Your task to perform on an android device: turn off improve location accuracy Image 0: 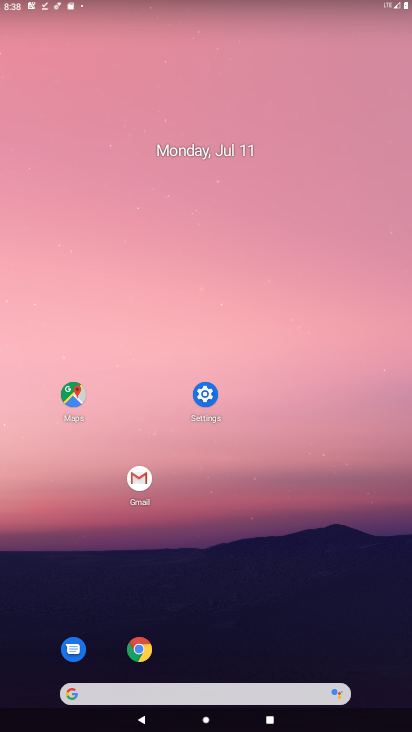
Step 0: click (206, 399)
Your task to perform on an android device: turn off improve location accuracy Image 1: 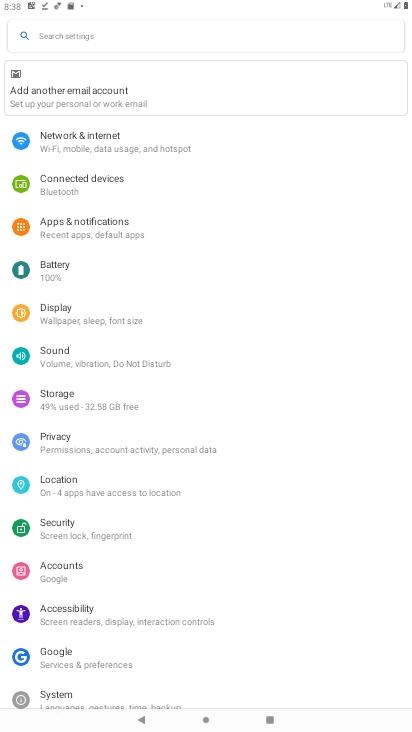
Step 1: click (63, 479)
Your task to perform on an android device: turn off improve location accuracy Image 2: 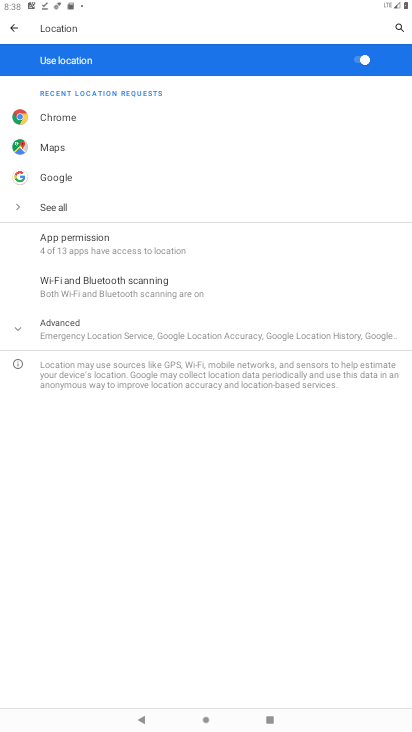
Step 2: click (23, 328)
Your task to perform on an android device: turn off improve location accuracy Image 3: 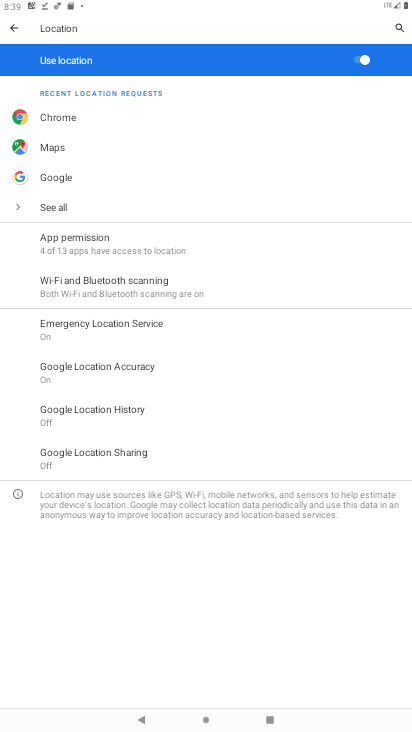
Step 3: click (110, 372)
Your task to perform on an android device: turn off improve location accuracy Image 4: 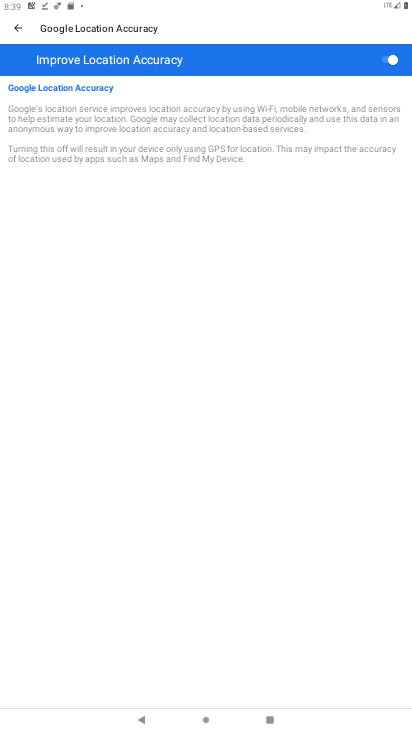
Step 4: click (391, 62)
Your task to perform on an android device: turn off improve location accuracy Image 5: 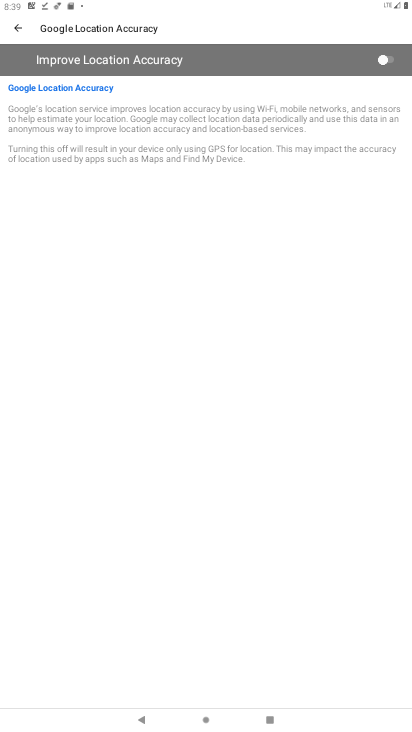
Step 5: task complete